Your task to perform on an android device: empty trash in the gmail app Image 0: 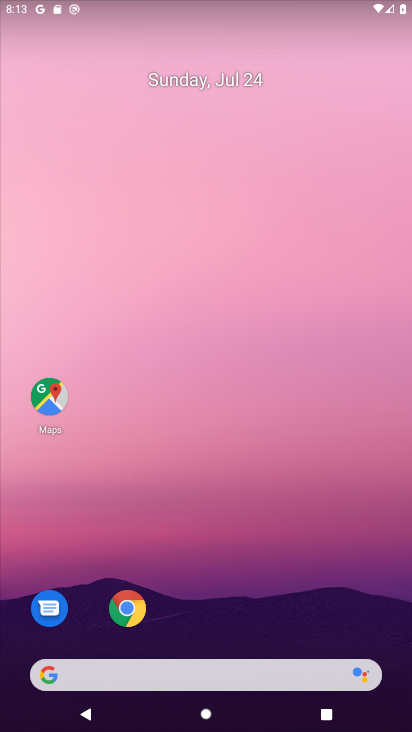
Step 0: drag from (237, 634) to (233, 170)
Your task to perform on an android device: empty trash in the gmail app Image 1: 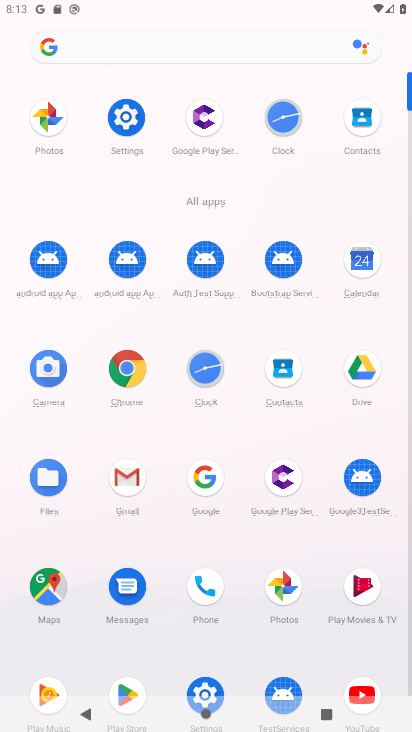
Step 1: click (118, 488)
Your task to perform on an android device: empty trash in the gmail app Image 2: 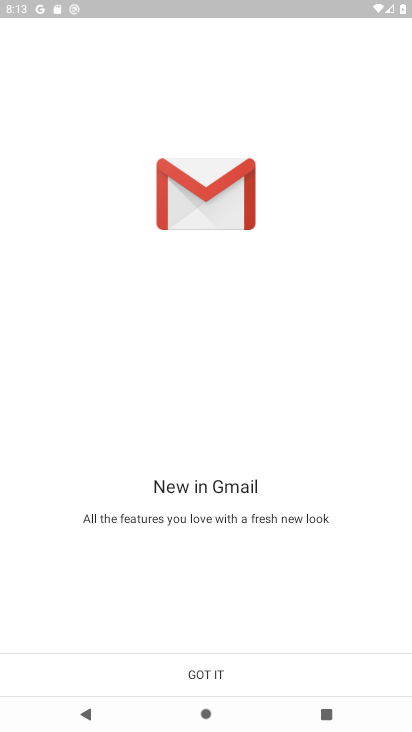
Step 2: click (191, 677)
Your task to perform on an android device: empty trash in the gmail app Image 3: 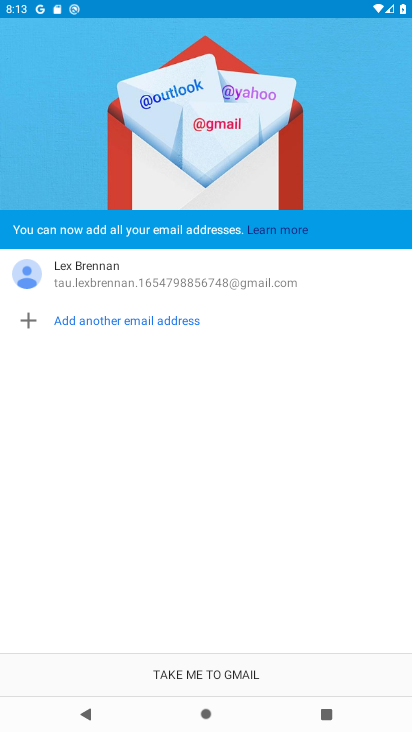
Step 3: click (191, 677)
Your task to perform on an android device: empty trash in the gmail app Image 4: 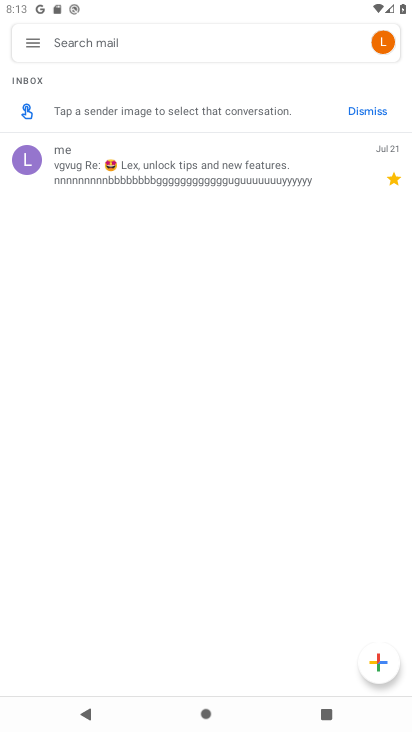
Step 4: click (35, 46)
Your task to perform on an android device: empty trash in the gmail app Image 5: 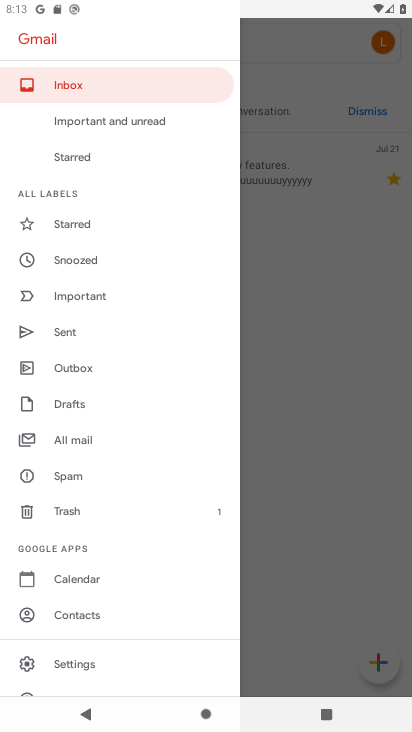
Step 5: click (67, 516)
Your task to perform on an android device: empty trash in the gmail app Image 6: 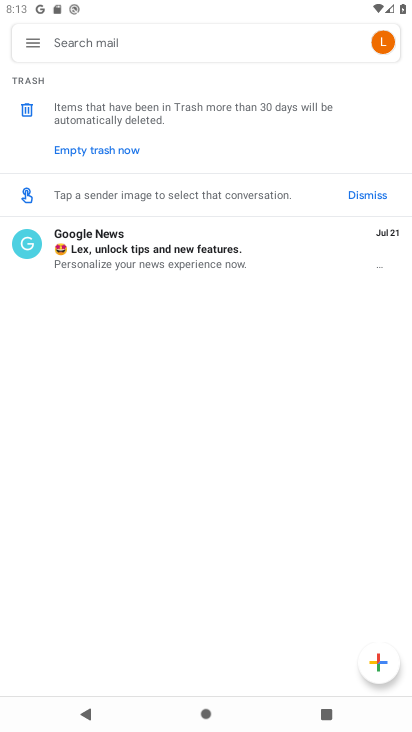
Step 6: click (113, 156)
Your task to perform on an android device: empty trash in the gmail app Image 7: 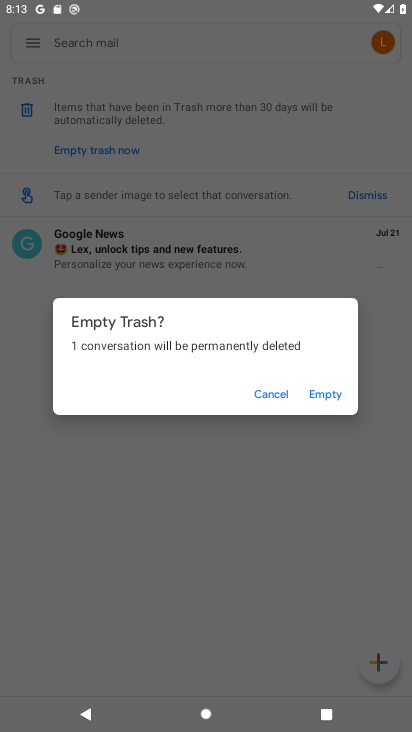
Step 7: click (342, 397)
Your task to perform on an android device: empty trash in the gmail app Image 8: 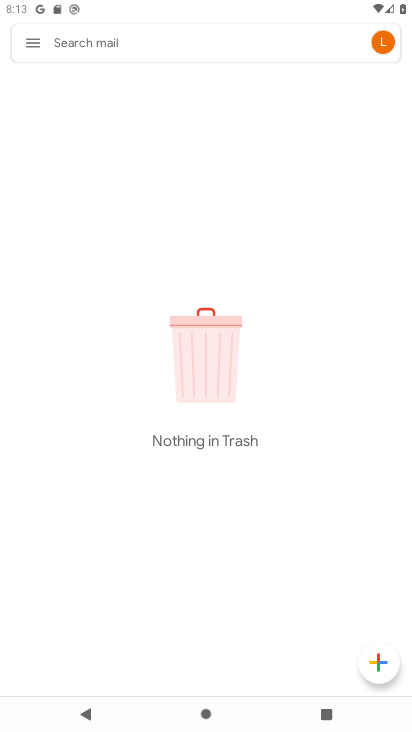
Step 8: task complete